Your task to perform on an android device: all mails in gmail Image 0: 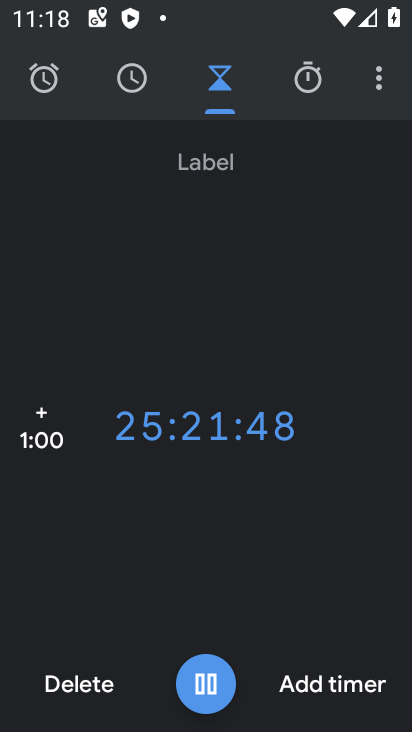
Step 0: press home button
Your task to perform on an android device: all mails in gmail Image 1: 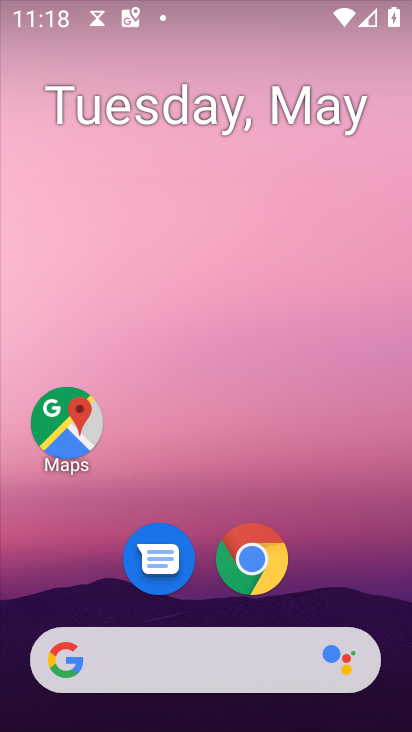
Step 1: drag from (380, 588) to (346, 28)
Your task to perform on an android device: all mails in gmail Image 2: 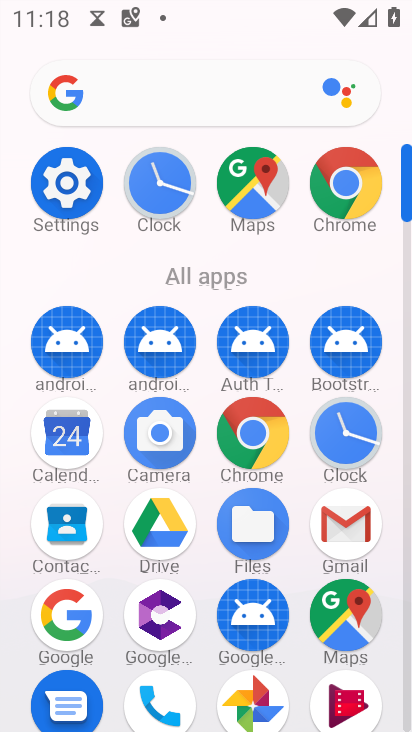
Step 2: click (362, 522)
Your task to perform on an android device: all mails in gmail Image 3: 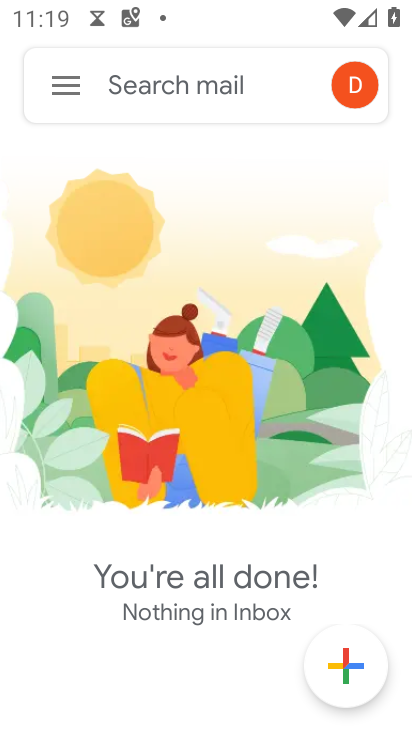
Step 3: click (76, 102)
Your task to perform on an android device: all mails in gmail Image 4: 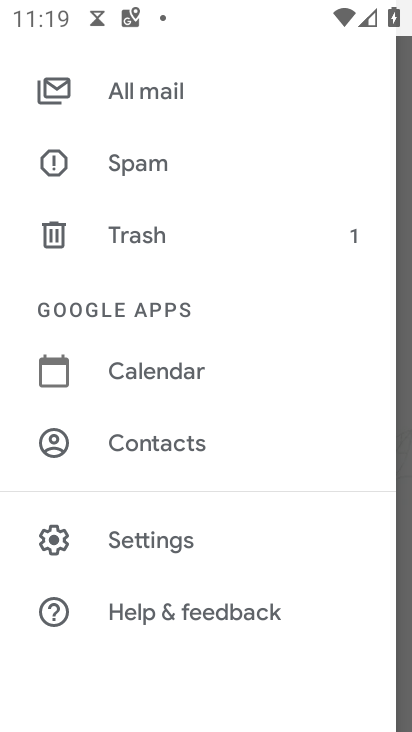
Step 4: click (167, 96)
Your task to perform on an android device: all mails in gmail Image 5: 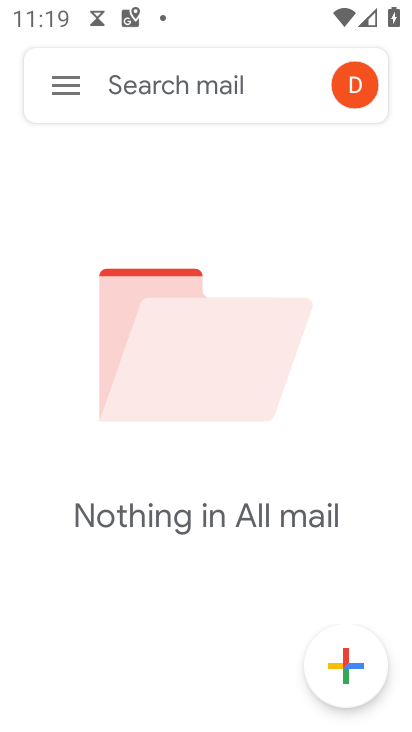
Step 5: task complete